Your task to perform on an android device: change the clock style Image 0: 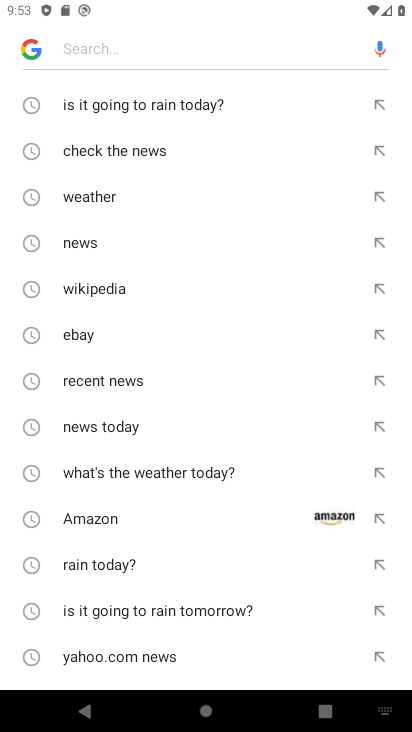
Step 0: press home button
Your task to perform on an android device: change the clock style Image 1: 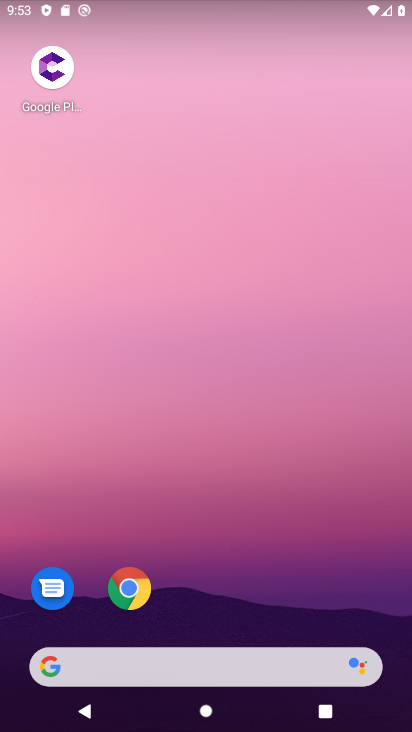
Step 1: drag from (290, 611) to (213, 223)
Your task to perform on an android device: change the clock style Image 2: 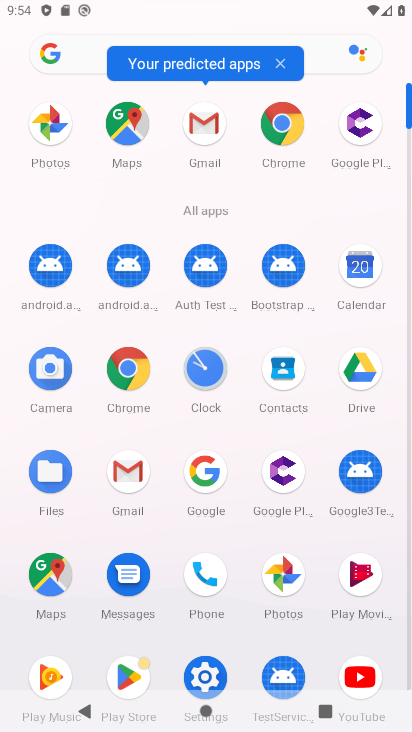
Step 2: click (196, 375)
Your task to perform on an android device: change the clock style Image 3: 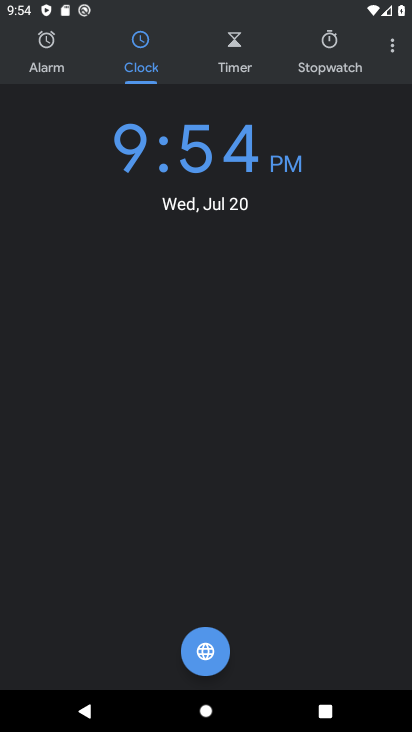
Step 3: click (396, 52)
Your task to perform on an android device: change the clock style Image 4: 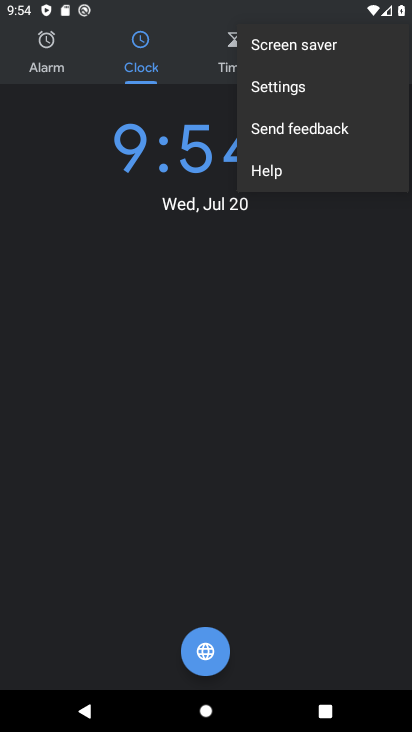
Step 4: click (341, 86)
Your task to perform on an android device: change the clock style Image 5: 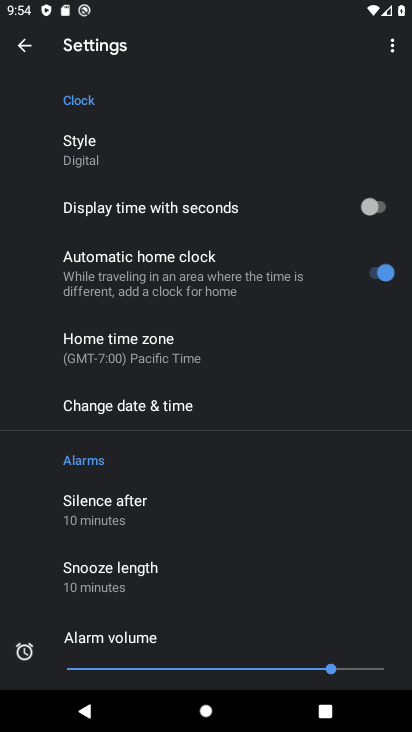
Step 5: click (92, 173)
Your task to perform on an android device: change the clock style Image 6: 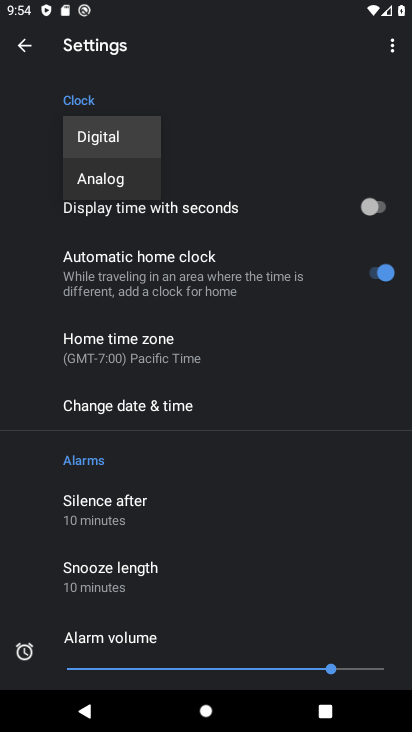
Step 6: click (93, 186)
Your task to perform on an android device: change the clock style Image 7: 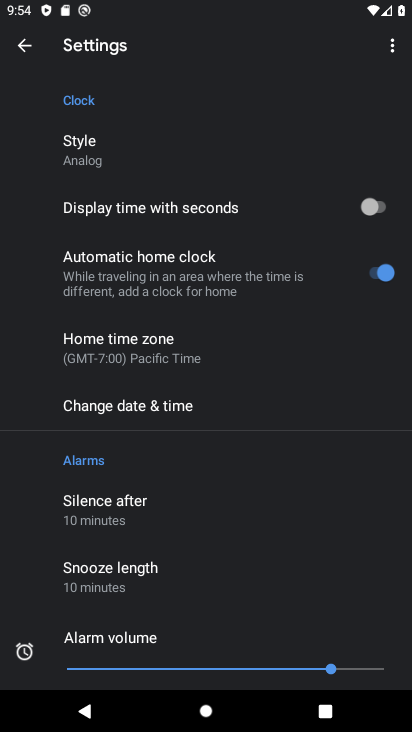
Step 7: task complete